Your task to perform on an android device: Turn on the flashlight Image 0: 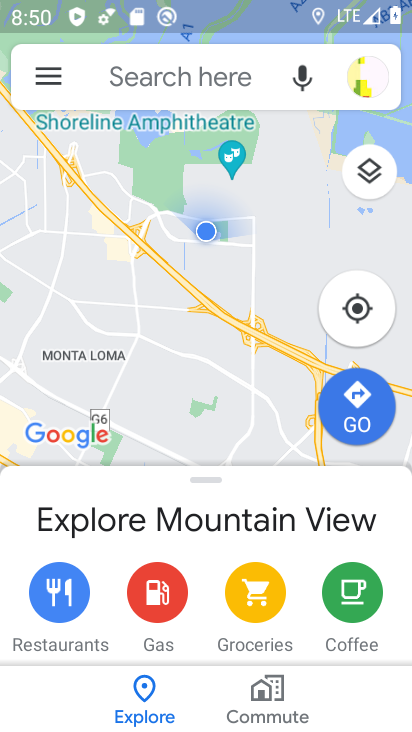
Step 0: press home button
Your task to perform on an android device: Turn on the flashlight Image 1: 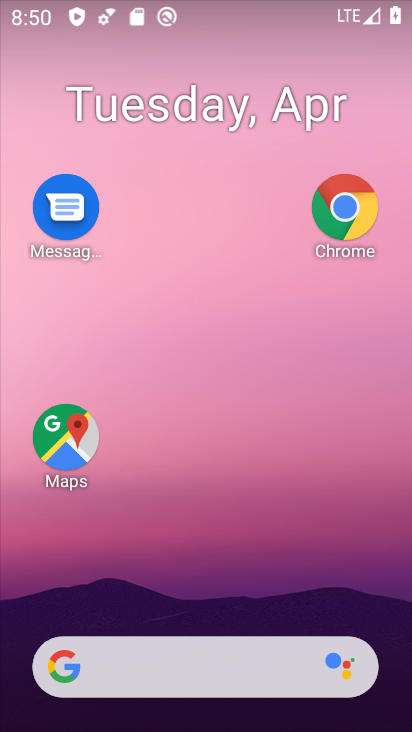
Step 1: drag from (235, 627) to (244, 61)
Your task to perform on an android device: Turn on the flashlight Image 2: 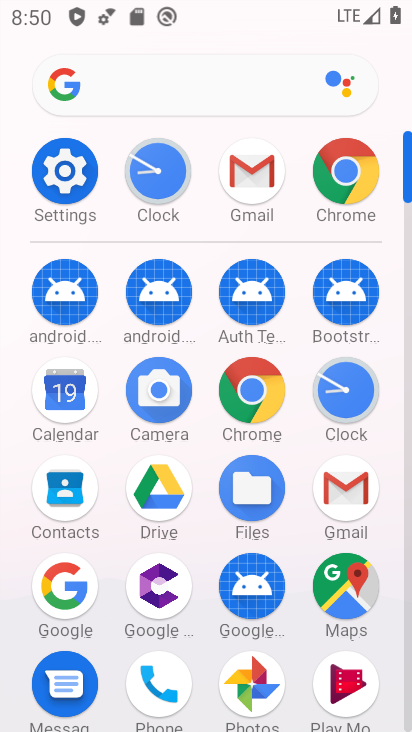
Step 2: click (72, 170)
Your task to perform on an android device: Turn on the flashlight Image 3: 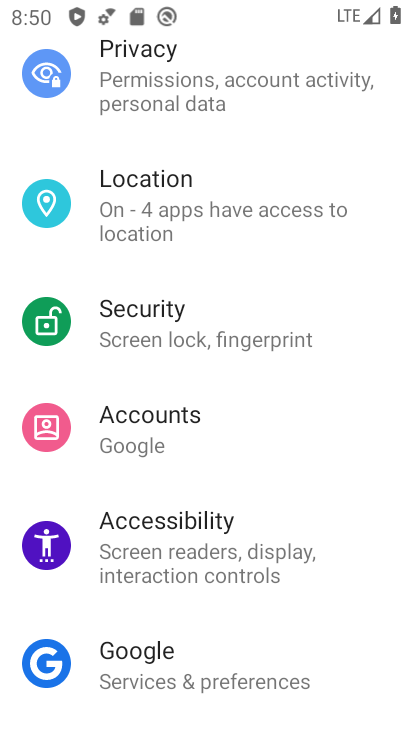
Step 3: drag from (197, 141) to (191, 573)
Your task to perform on an android device: Turn on the flashlight Image 4: 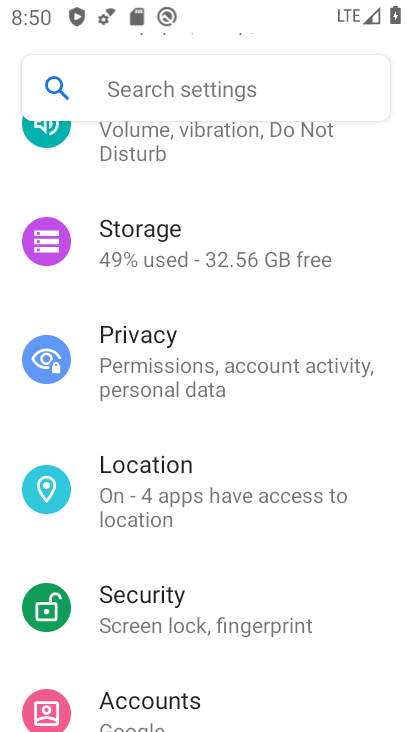
Step 4: click (200, 85)
Your task to perform on an android device: Turn on the flashlight Image 5: 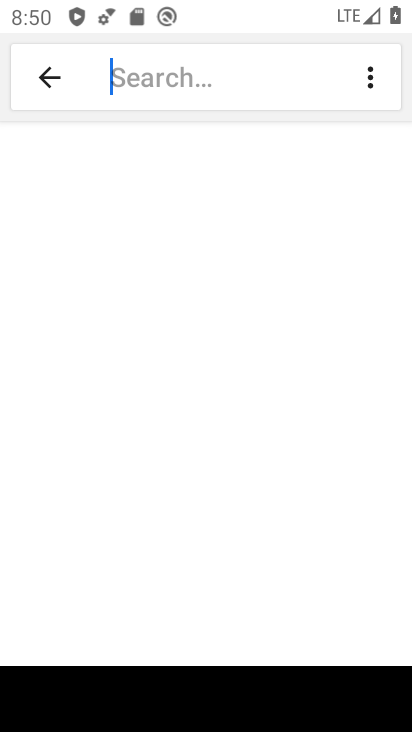
Step 5: type "flashlight"
Your task to perform on an android device: Turn on the flashlight Image 6: 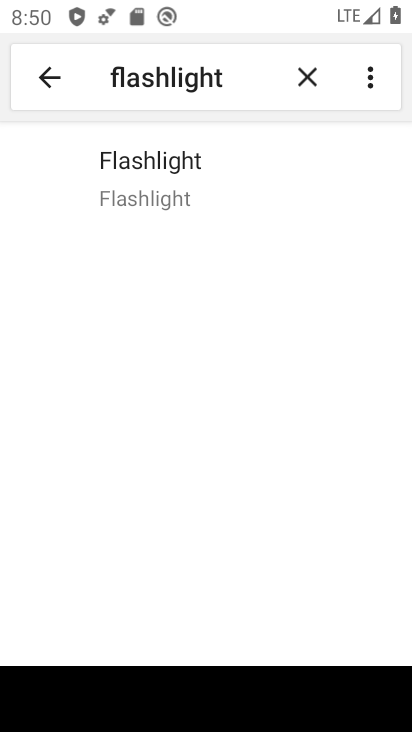
Step 6: task complete